Your task to perform on an android device: Go to Amazon Image 0: 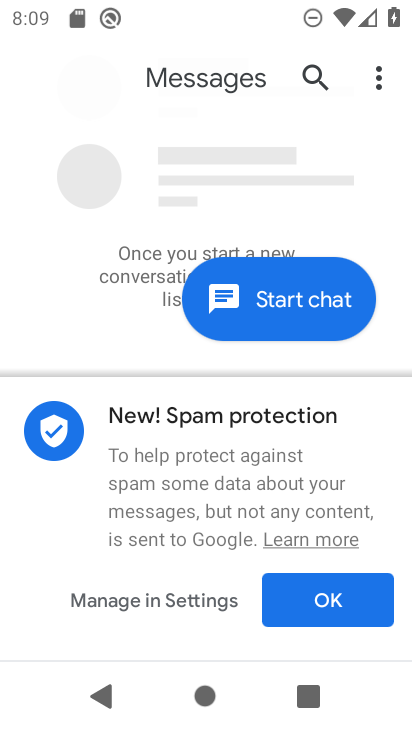
Step 0: press home button
Your task to perform on an android device: Go to Amazon Image 1: 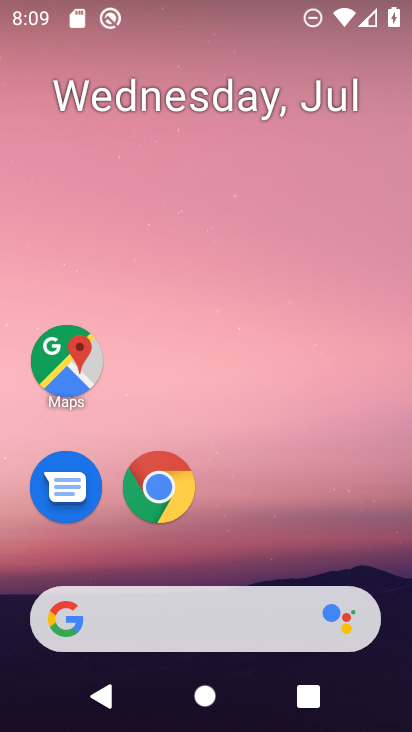
Step 1: drag from (369, 551) to (370, 94)
Your task to perform on an android device: Go to Amazon Image 2: 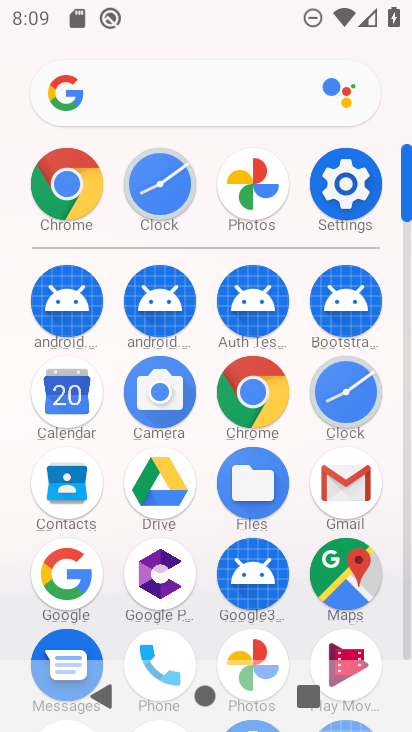
Step 2: click (266, 385)
Your task to perform on an android device: Go to Amazon Image 3: 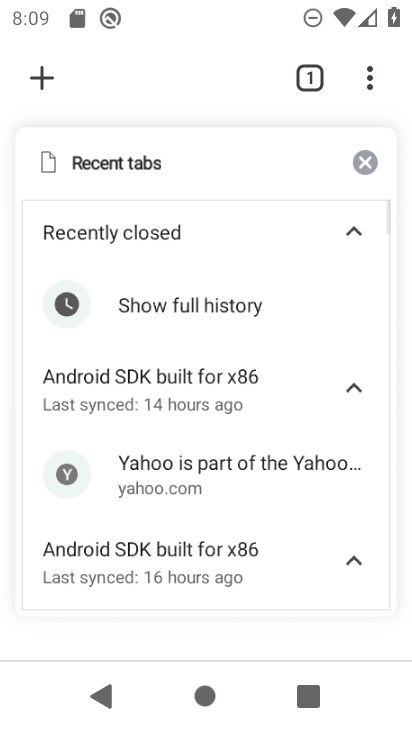
Step 3: press back button
Your task to perform on an android device: Go to Amazon Image 4: 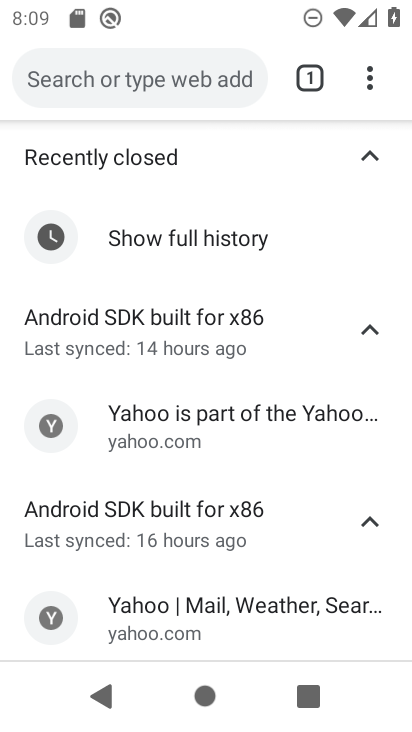
Step 4: click (214, 82)
Your task to perform on an android device: Go to Amazon Image 5: 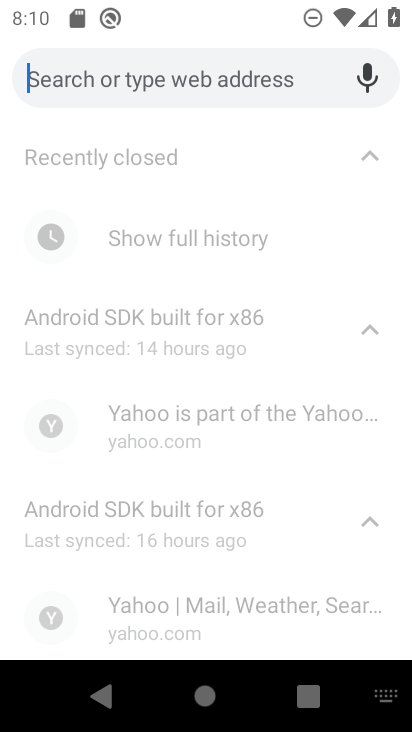
Step 5: type "amazon"
Your task to perform on an android device: Go to Amazon Image 6: 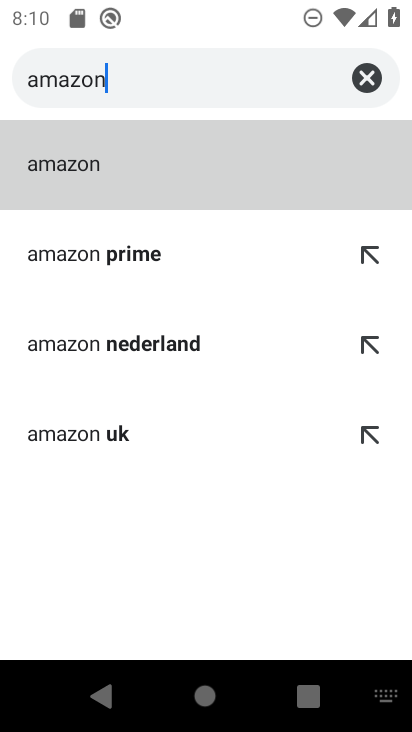
Step 6: click (265, 164)
Your task to perform on an android device: Go to Amazon Image 7: 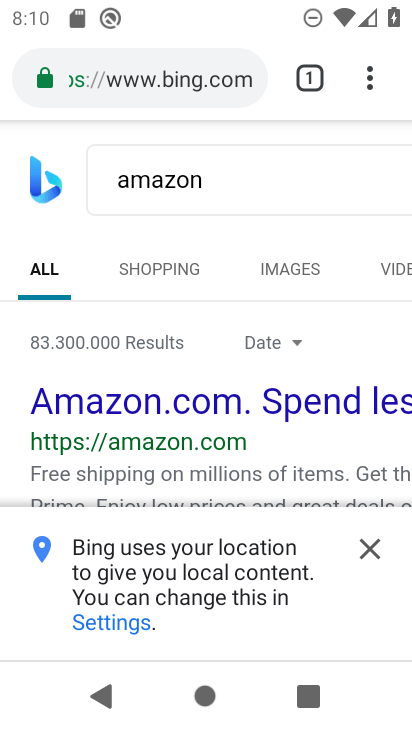
Step 7: task complete